Your task to perform on an android device: turn on airplane mode Image 0: 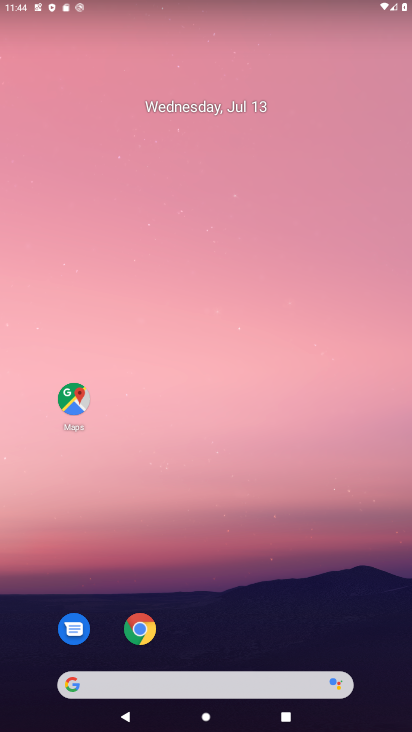
Step 0: drag from (237, 597) to (216, 205)
Your task to perform on an android device: turn on airplane mode Image 1: 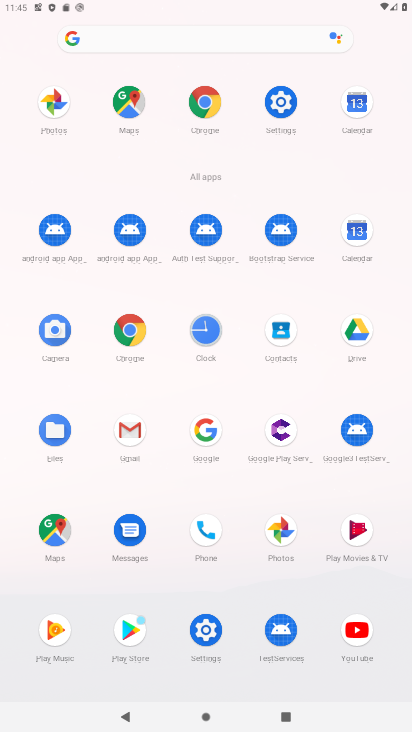
Step 1: click (275, 108)
Your task to perform on an android device: turn on airplane mode Image 2: 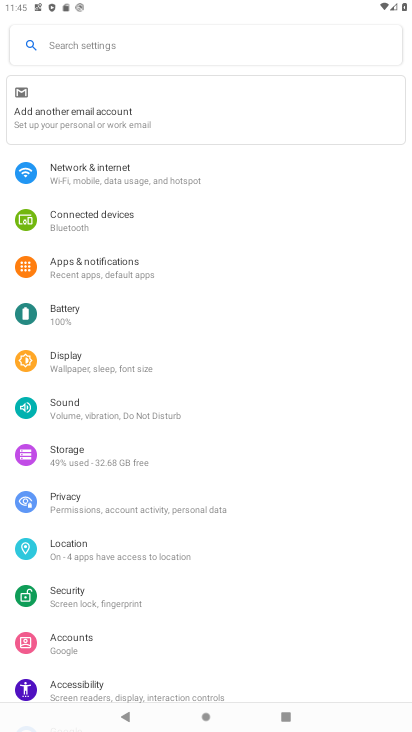
Step 2: click (108, 172)
Your task to perform on an android device: turn on airplane mode Image 3: 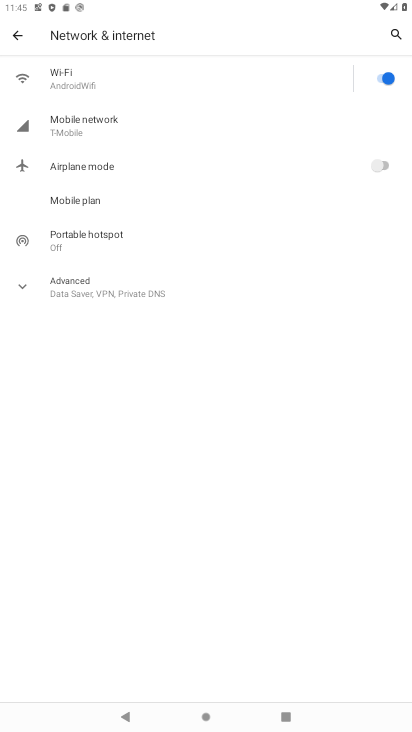
Step 3: click (372, 163)
Your task to perform on an android device: turn on airplane mode Image 4: 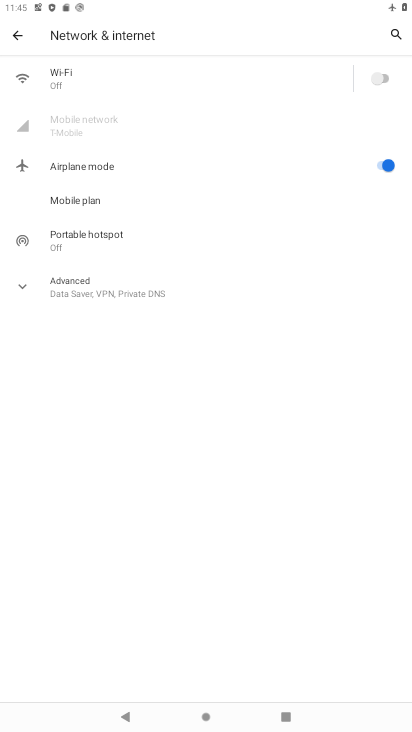
Step 4: click (381, 75)
Your task to perform on an android device: turn on airplane mode Image 5: 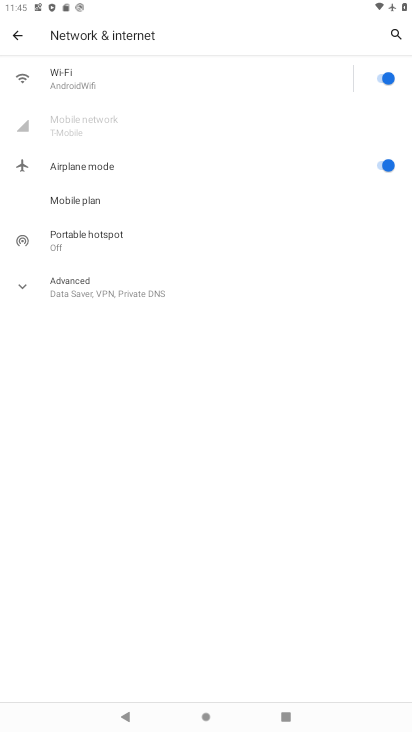
Step 5: task complete